Your task to perform on an android device: change the clock display to show seconds Image 0: 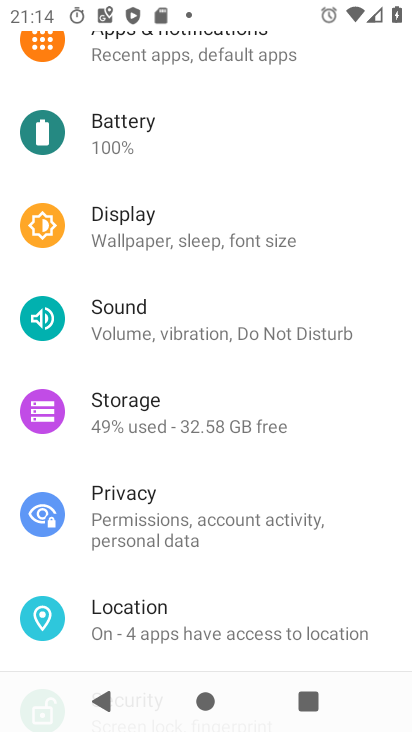
Step 0: press home button
Your task to perform on an android device: change the clock display to show seconds Image 1: 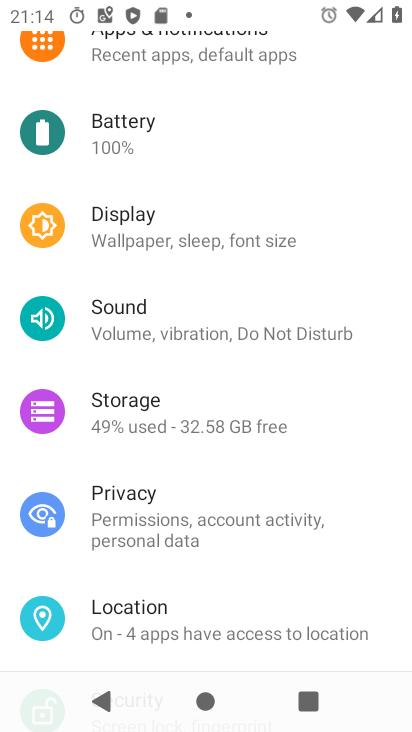
Step 1: press home button
Your task to perform on an android device: change the clock display to show seconds Image 2: 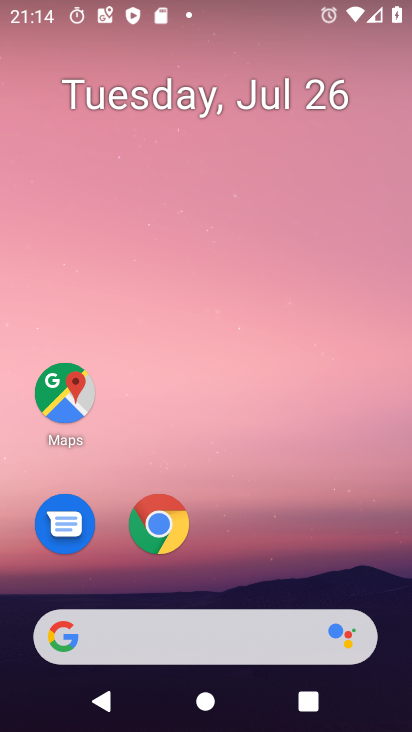
Step 2: drag from (317, 557) to (347, 19)
Your task to perform on an android device: change the clock display to show seconds Image 3: 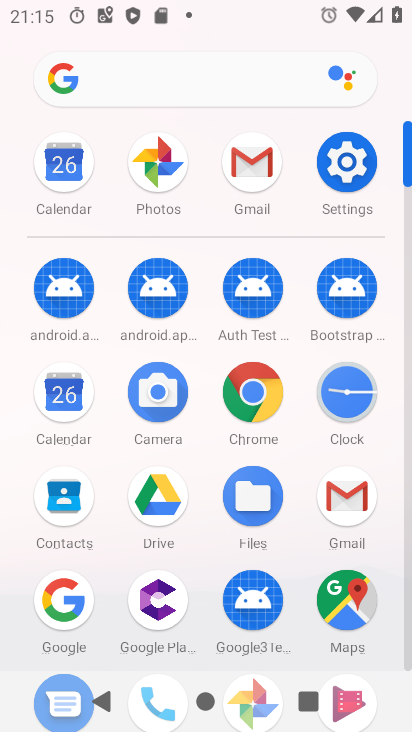
Step 3: click (338, 392)
Your task to perform on an android device: change the clock display to show seconds Image 4: 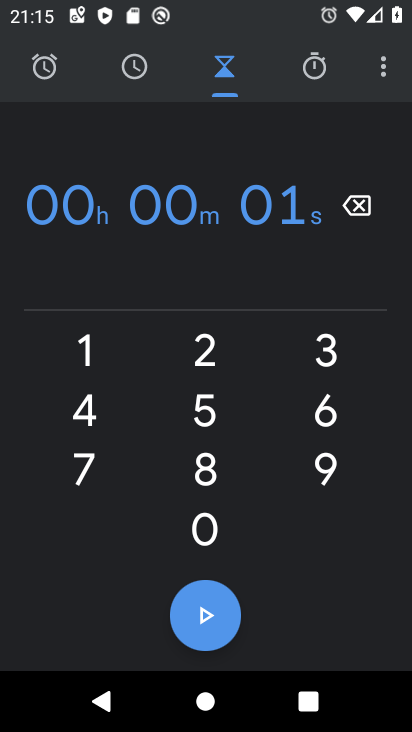
Step 4: click (139, 80)
Your task to perform on an android device: change the clock display to show seconds Image 5: 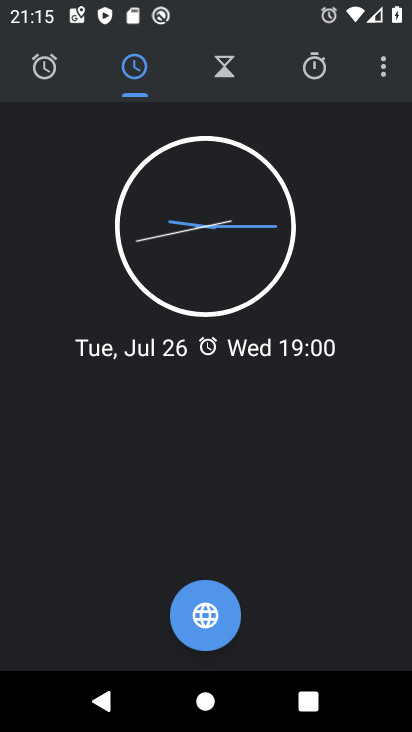
Step 5: task complete